Your task to perform on an android device: Open the stopwatch Image 0: 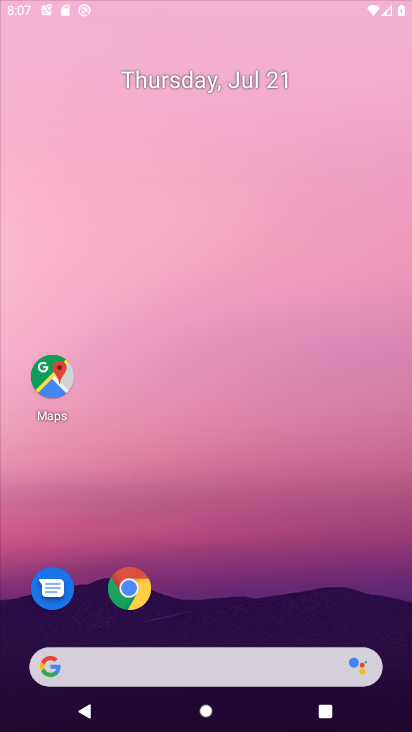
Step 0: drag from (231, 556) to (176, 124)
Your task to perform on an android device: Open the stopwatch Image 1: 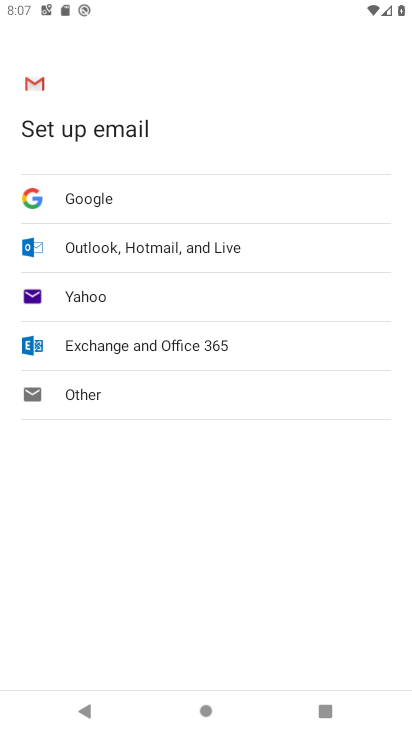
Step 1: press back button
Your task to perform on an android device: Open the stopwatch Image 2: 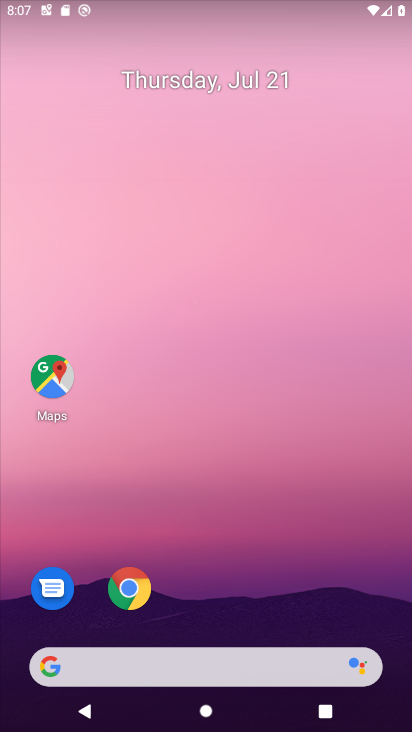
Step 2: drag from (278, 647) to (266, 334)
Your task to perform on an android device: Open the stopwatch Image 3: 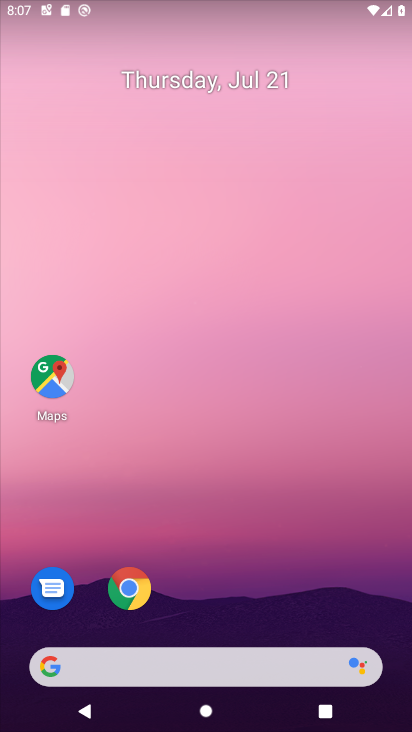
Step 3: drag from (206, 596) to (206, 146)
Your task to perform on an android device: Open the stopwatch Image 4: 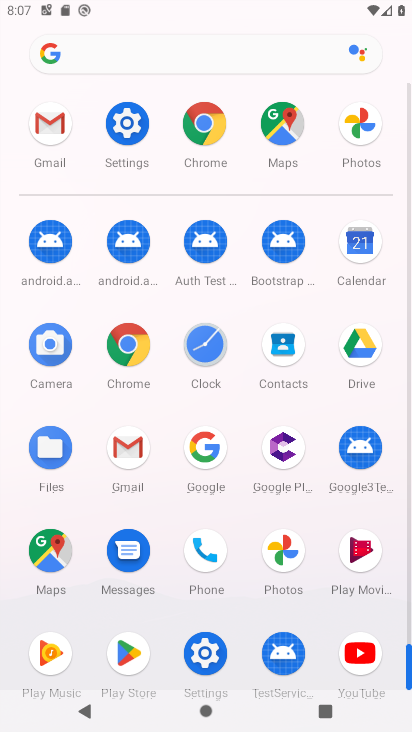
Step 4: click (210, 345)
Your task to perform on an android device: Open the stopwatch Image 5: 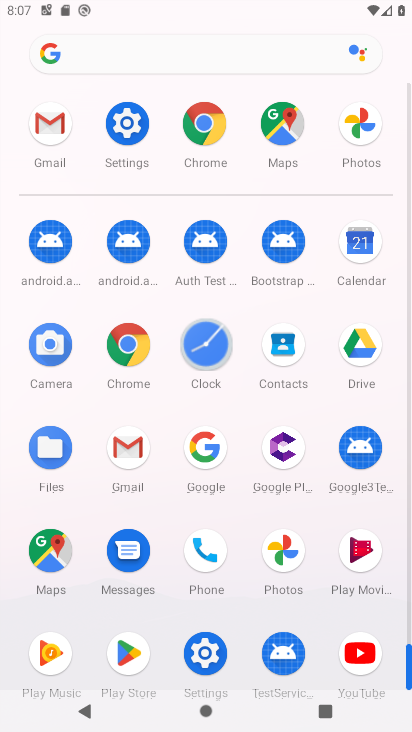
Step 5: click (209, 343)
Your task to perform on an android device: Open the stopwatch Image 6: 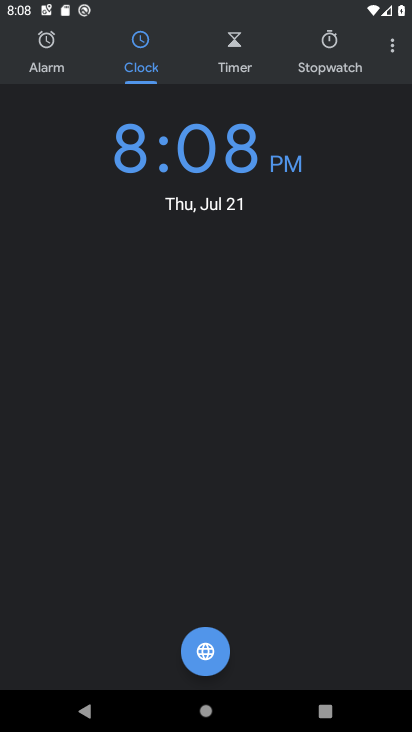
Step 6: click (338, 51)
Your task to perform on an android device: Open the stopwatch Image 7: 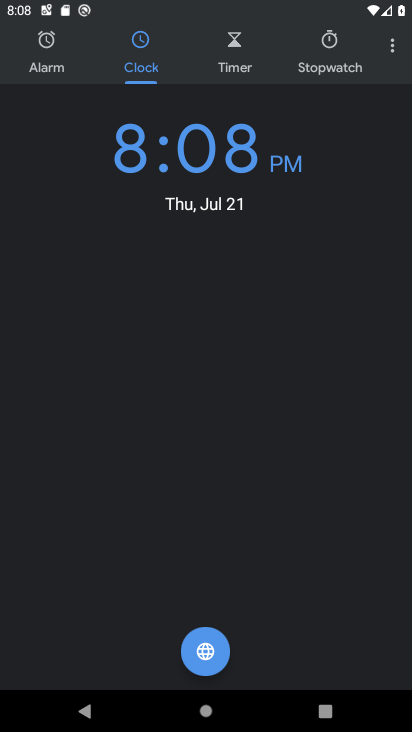
Step 7: click (337, 51)
Your task to perform on an android device: Open the stopwatch Image 8: 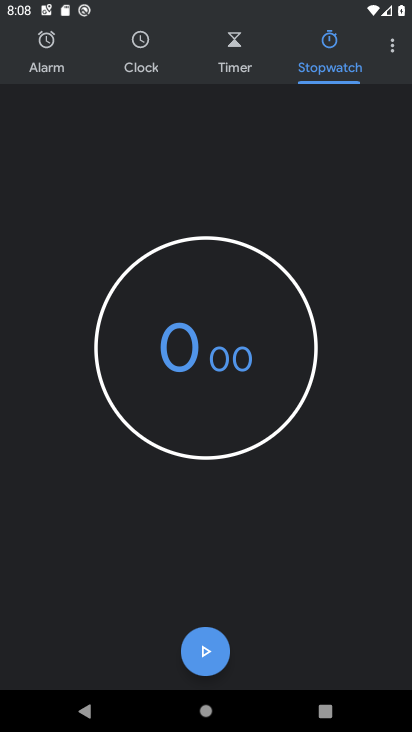
Step 8: click (202, 644)
Your task to perform on an android device: Open the stopwatch Image 9: 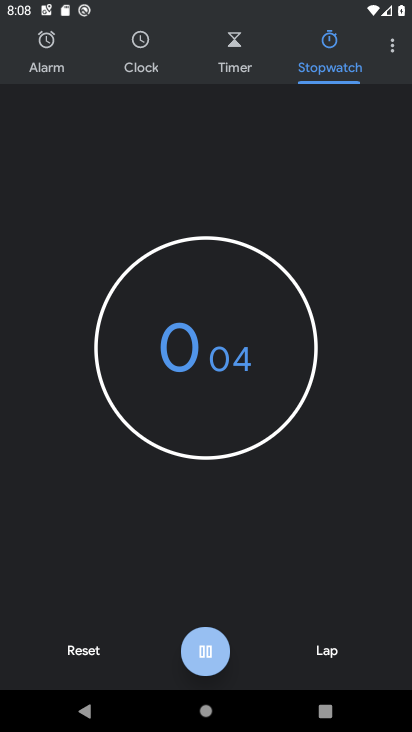
Step 9: click (202, 644)
Your task to perform on an android device: Open the stopwatch Image 10: 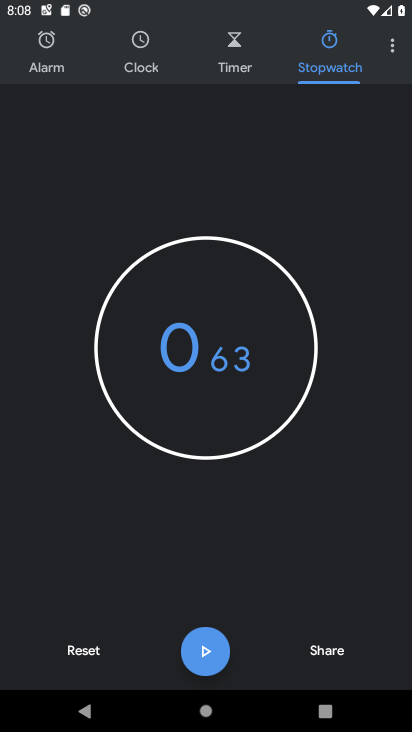
Step 10: click (206, 641)
Your task to perform on an android device: Open the stopwatch Image 11: 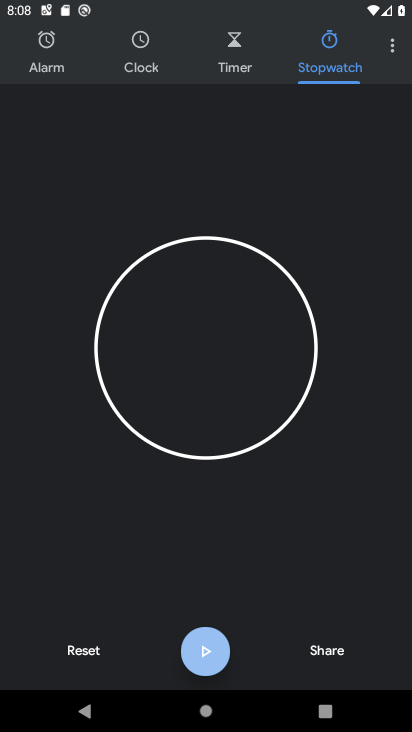
Step 11: click (206, 640)
Your task to perform on an android device: Open the stopwatch Image 12: 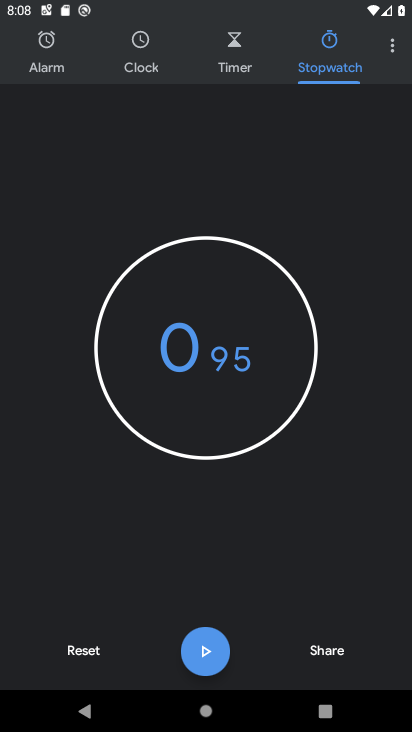
Step 12: click (209, 649)
Your task to perform on an android device: Open the stopwatch Image 13: 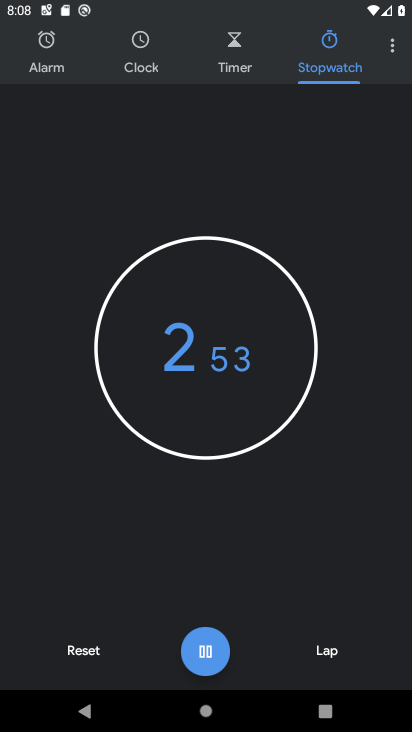
Step 13: click (206, 649)
Your task to perform on an android device: Open the stopwatch Image 14: 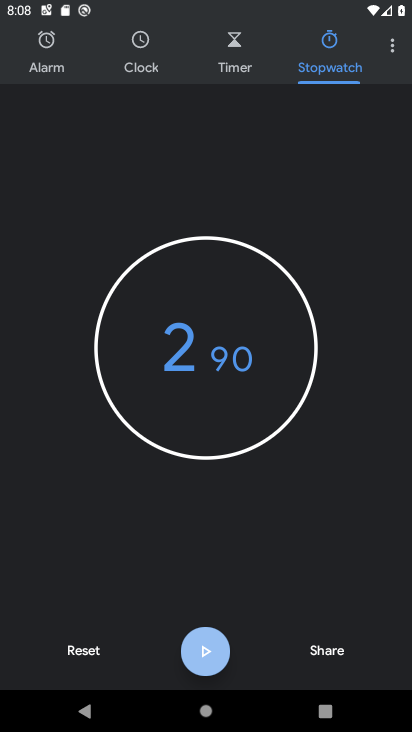
Step 14: click (206, 649)
Your task to perform on an android device: Open the stopwatch Image 15: 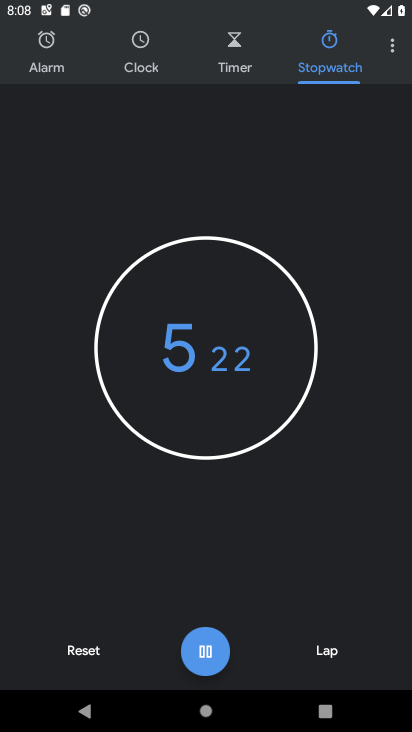
Step 15: click (200, 650)
Your task to perform on an android device: Open the stopwatch Image 16: 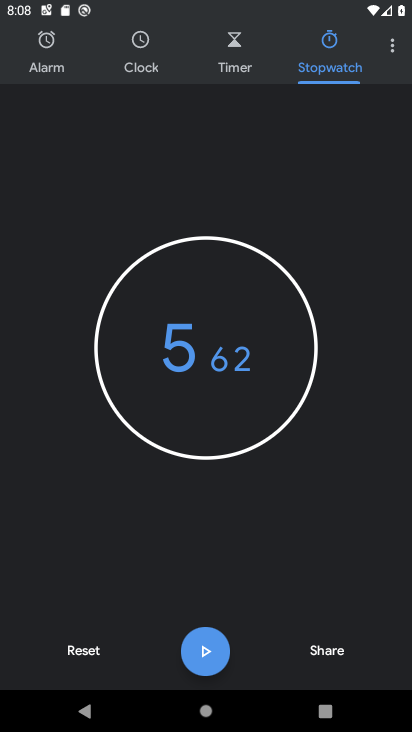
Step 16: task complete